Your task to perform on an android device: Open privacy settings Image 0: 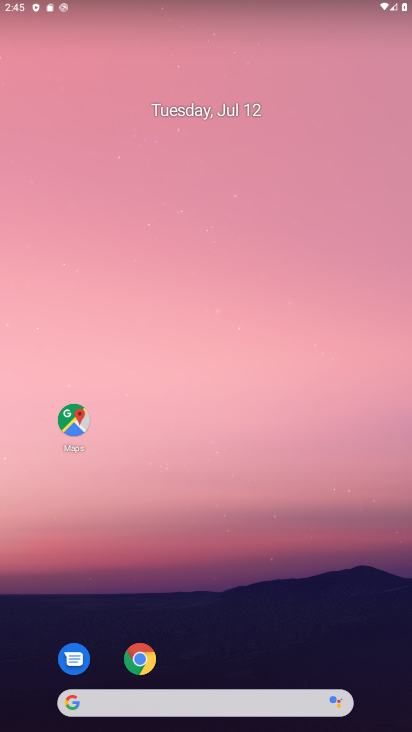
Step 0: drag from (213, 669) to (285, 176)
Your task to perform on an android device: Open privacy settings Image 1: 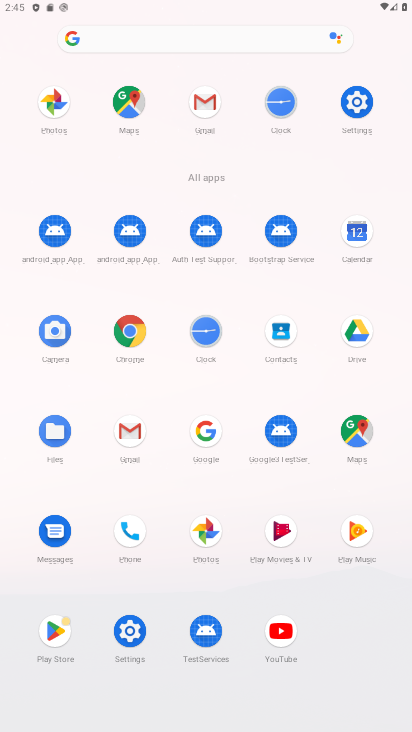
Step 1: click (117, 324)
Your task to perform on an android device: Open privacy settings Image 2: 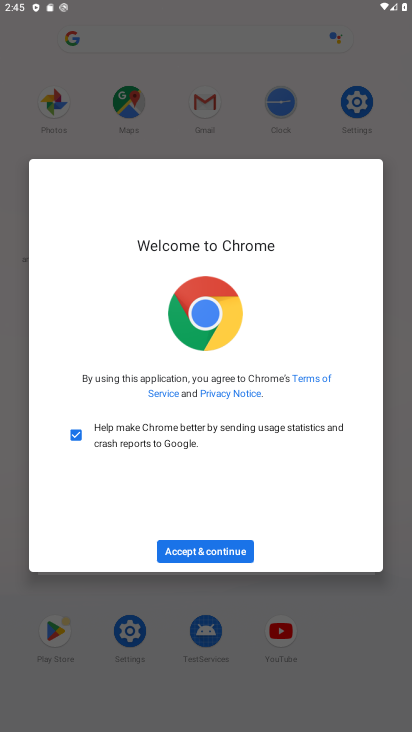
Step 2: click (228, 557)
Your task to perform on an android device: Open privacy settings Image 3: 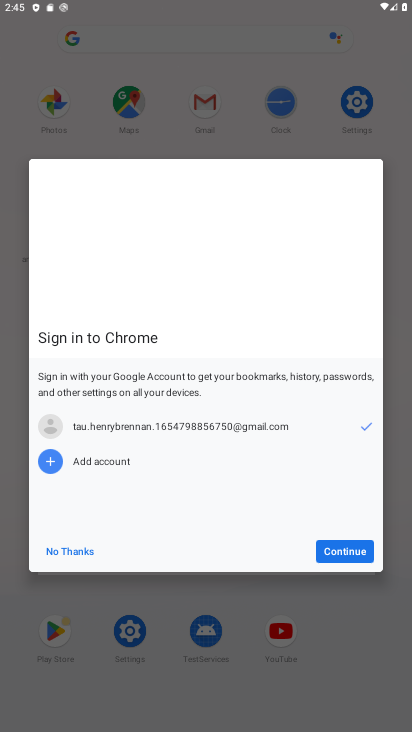
Step 3: click (325, 554)
Your task to perform on an android device: Open privacy settings Image 4: 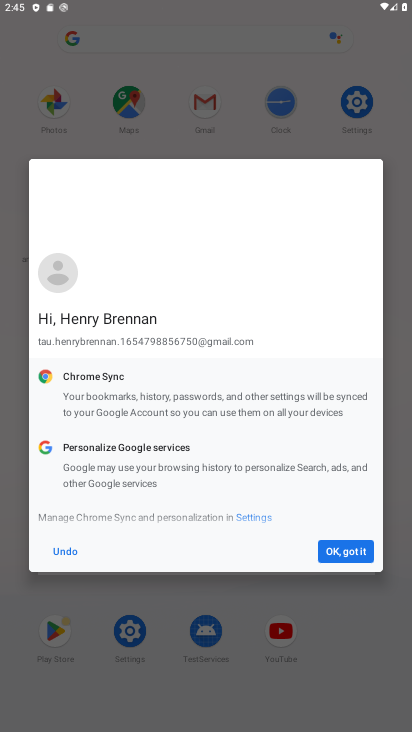
Step 4: click (326, 551)
Your task to perform on an android device: Open privacy settings Image 5: 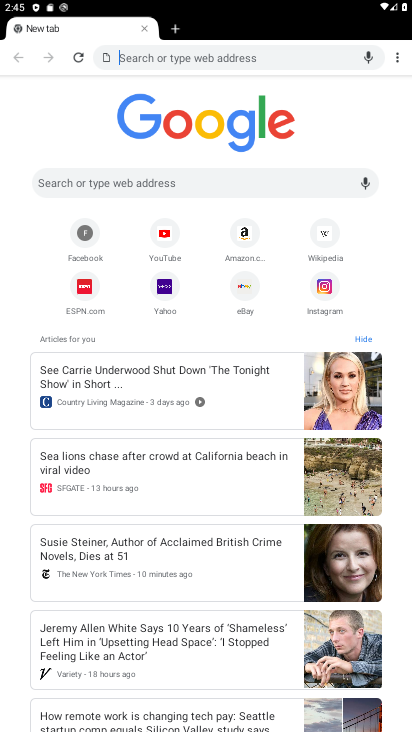
Step 5: drag from (391, 53) to (346, 252)
Your task to perform on an android device: Open privacy settings Image 6: 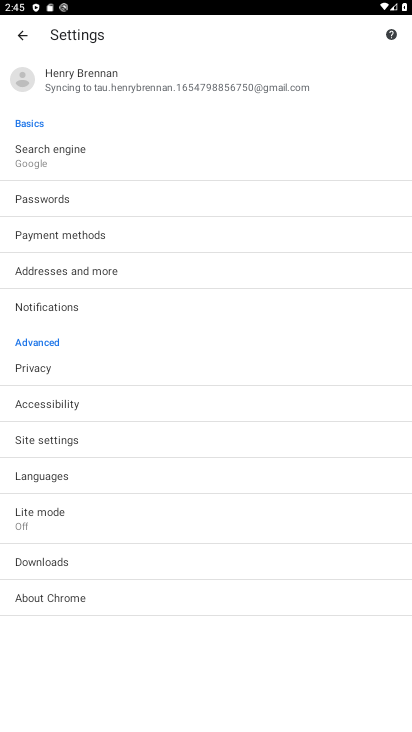
Step 6: click (104, 366)
Your task to perform on an android device: Open privacy settings Image 7: 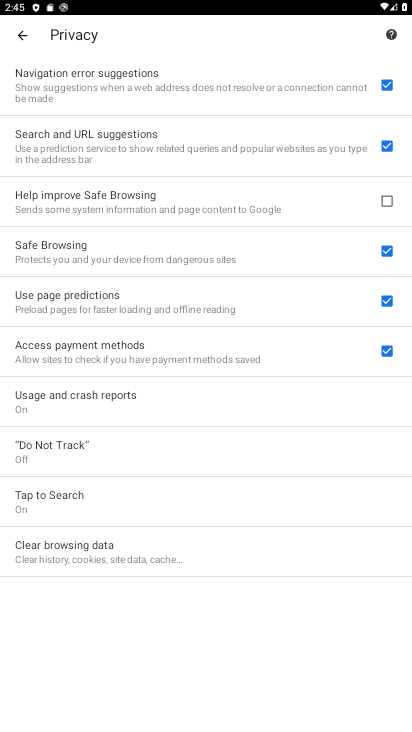
Step 7: task complete